Your task to perform on an android device: Open calendar and show me the third week of next month Image 0: 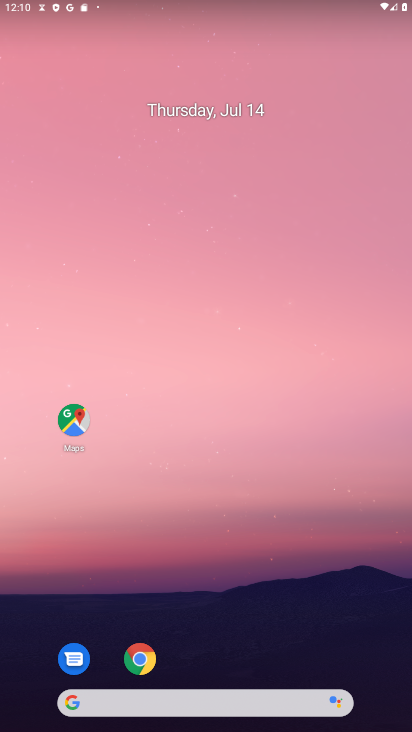
Step 0: drag from (39, 648) to (253, 88)
Your task to perform on an android device: Open calendar and show me the third week of next month Image 1: 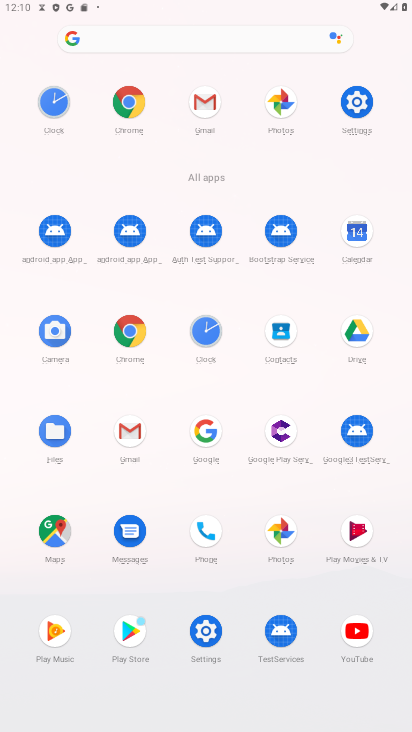
Step 1: click (349, 232)
Your task to perform on an android device: Open calendar and show me the third week of next month Image 2: 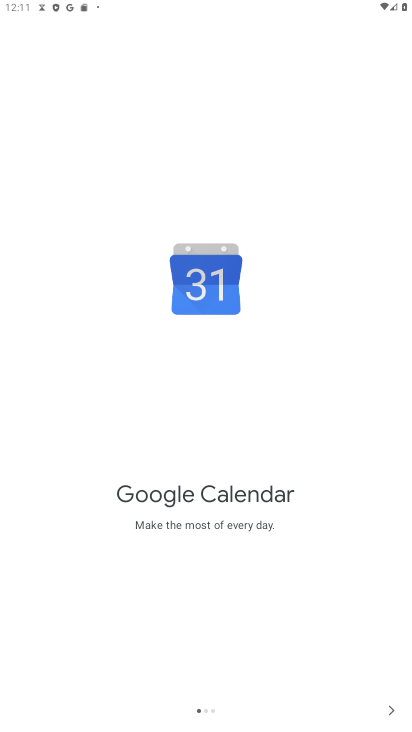
Step 2: click (394, 714)
Your task to perform on an android device: Open calendar and show me the third week of next month Image 3: 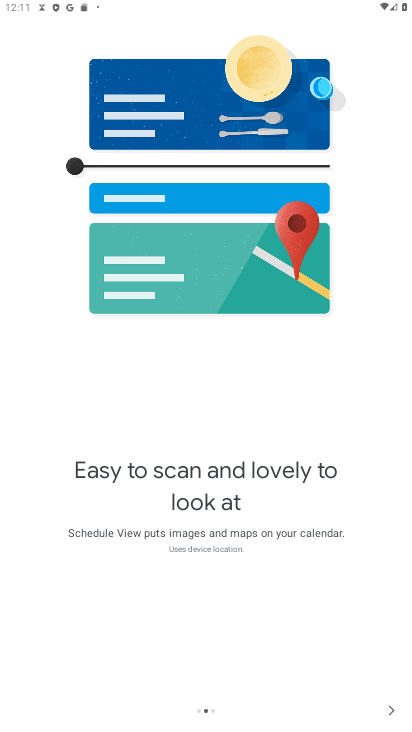
Step 3: click (382, 702)
Your task to perform on an android device: Open calendar and show me the third week of next month Image 4: 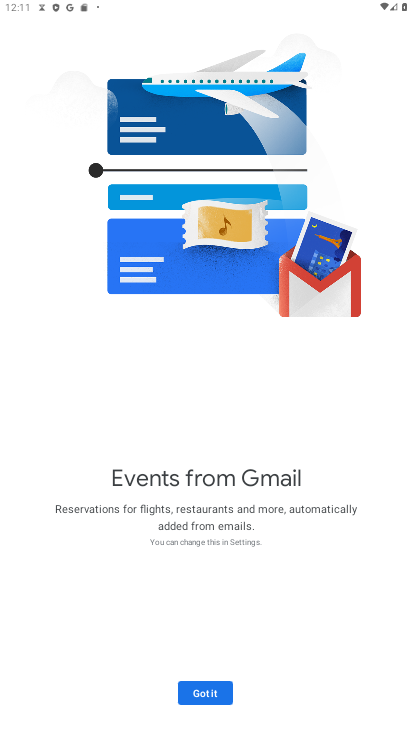
Step 4: click (201, 689)
Your task to perform on an android device: Open calendar and show me the third week of next month Image 5: 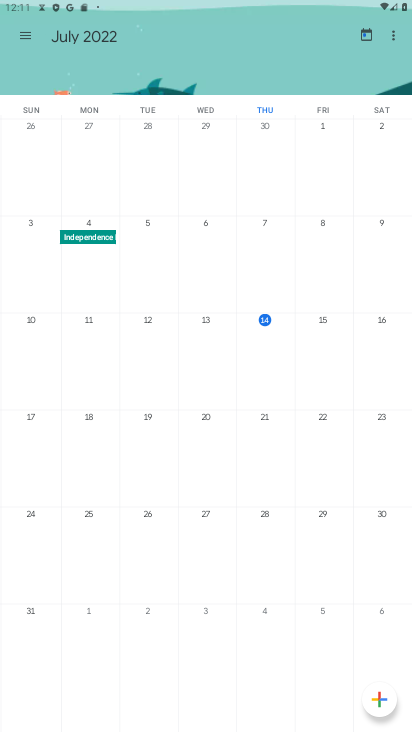
Step 5: drag from (364, 391) to (0, 395)
Your task to perform on an android device: Open calendar and show me the third week of next month Image 6: 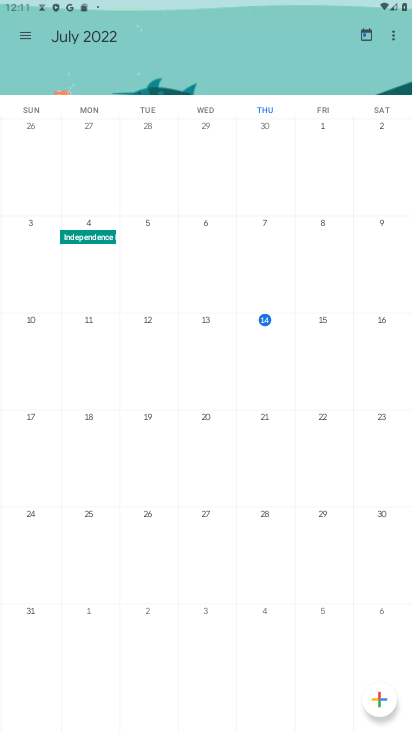
Step 6: drag from (402, 377) to (0, 313)
Your task to perform on an android device: Open calendar and show me the third week of next month Image 7: 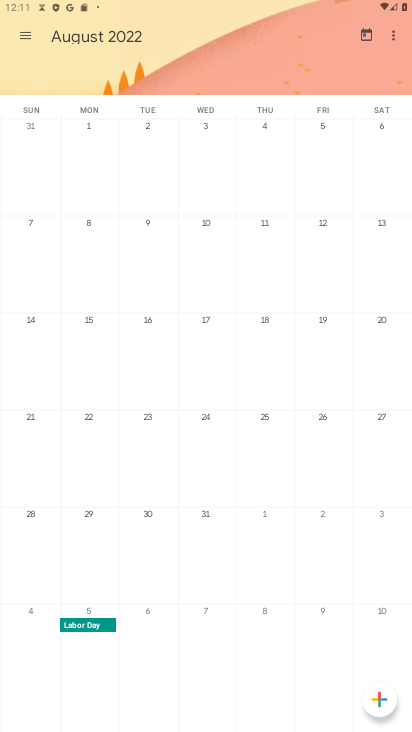
Step 7: click (84, 340)
Your task to perform on an android device: Open calendar and show me the third week of next month Image 8: 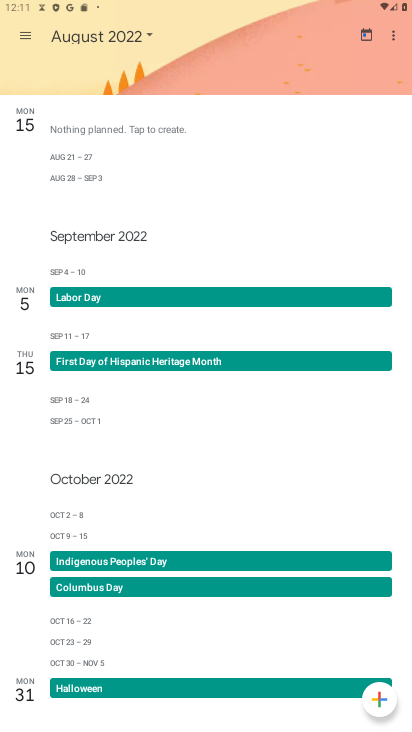
Step 8: task complete